Your task to perform on an android device: find photos in the google photos app Image 0: 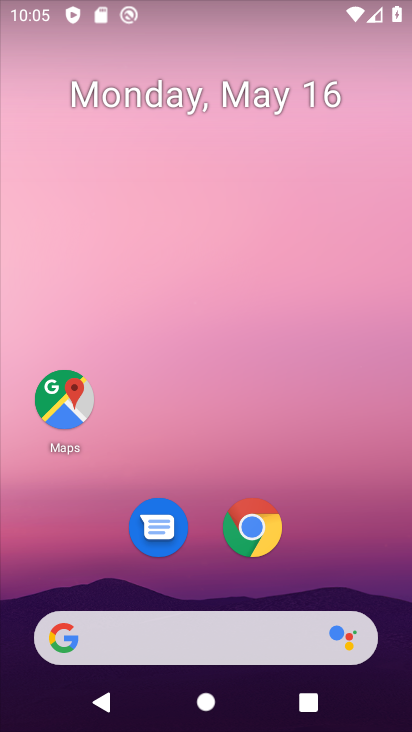
Step 0: press home button
Your task to perform on an android device: find photos in the google photos app Image 1: 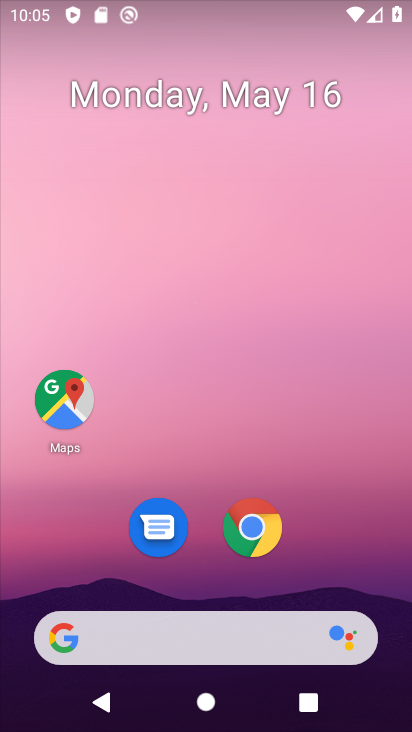
Step 1: drag from (341, 560) to (295, 82)
Your task to perform on an android device: find photos in the google photos app Image 2: 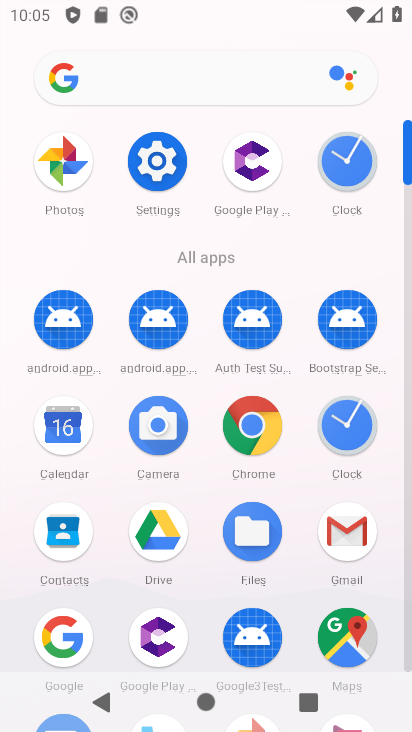
Step 2: click (409, 665)
Your task to perform on an android device: find photos in the google photos app Image 3: 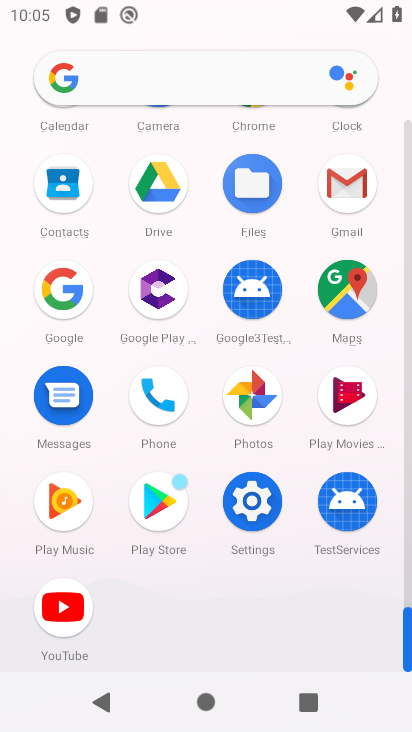
Step 3: click (279, 396)
Your task to perform on an android device: find photos in the google photos app Image 4: 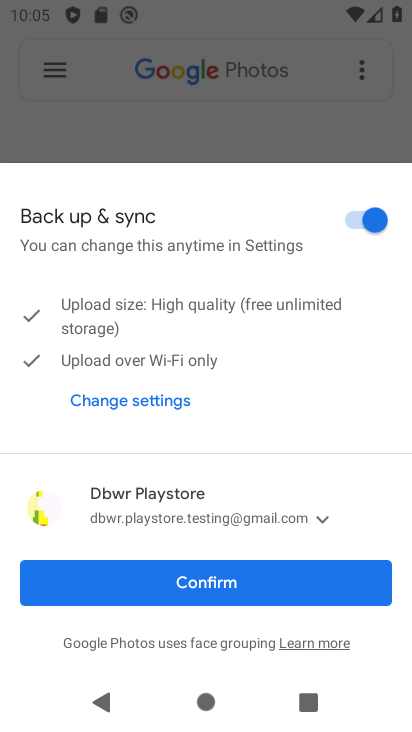
Step 4: click (319, 577)
Your task to perform on an android device: find photos in the google photos app Image 5: 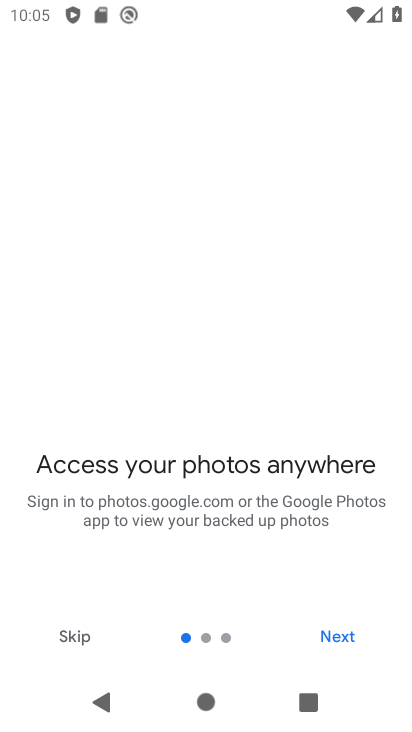
Step 5: click (345, 628)
Your task to perform on an android device: find photos in the google photos app Image 6: 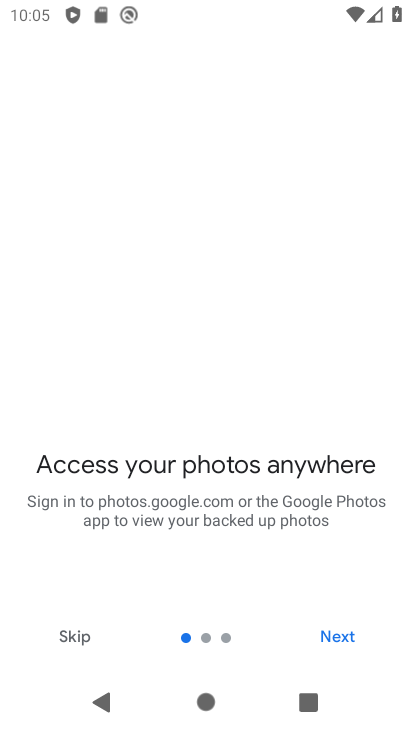
Step 6: click (345, 629)
Your task to perform on an android device: find photos in the google photos app Image 7: 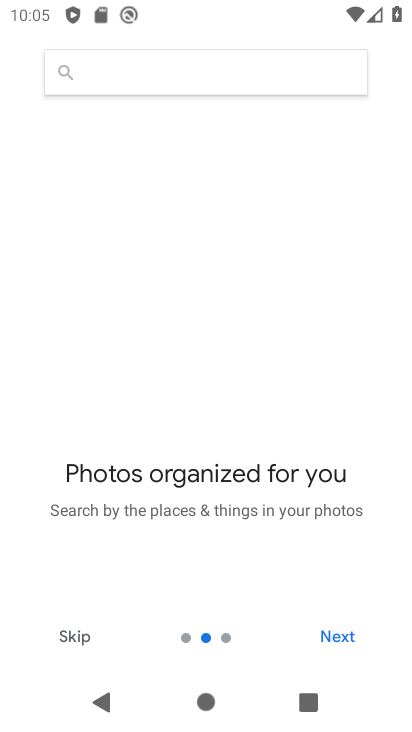
Step 7: click (345, 632)
Your task to perform on an android device: find photos in the google photos app Image 8: 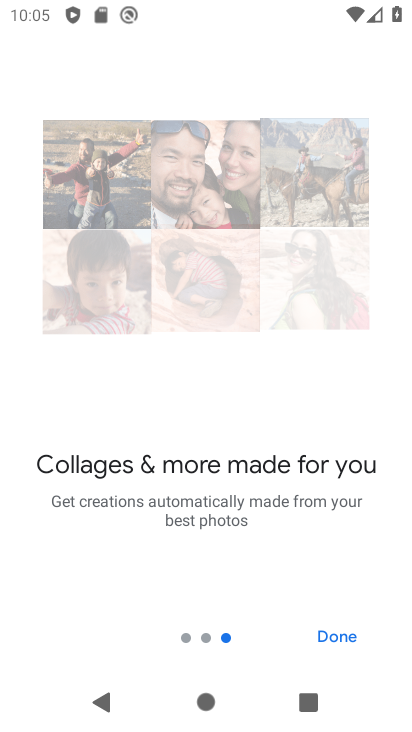
Step 8: click (345, 632)
Your task to perform on an android device: find photos in the google photos app Image 9: 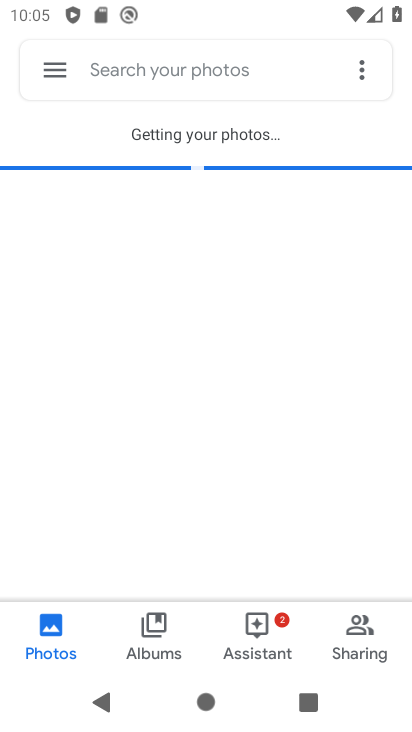
Step 9: click (345, 632)
Your task to perform on an android device: find photos in the google photos app Image 10: 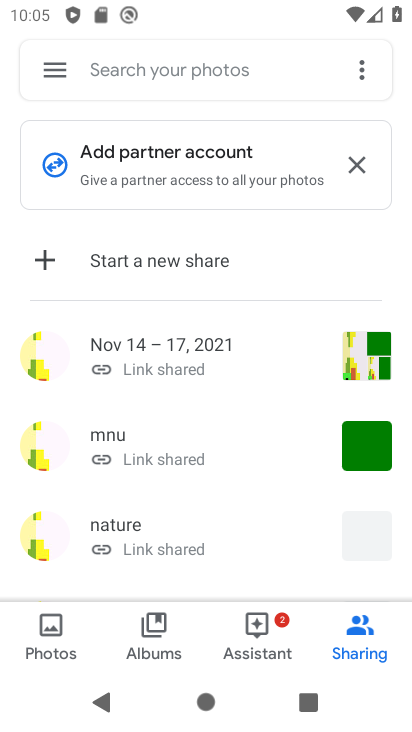
Step 10: click (78, 636)
Your task to perform on an android device: find photos in the google photos app Image 11: 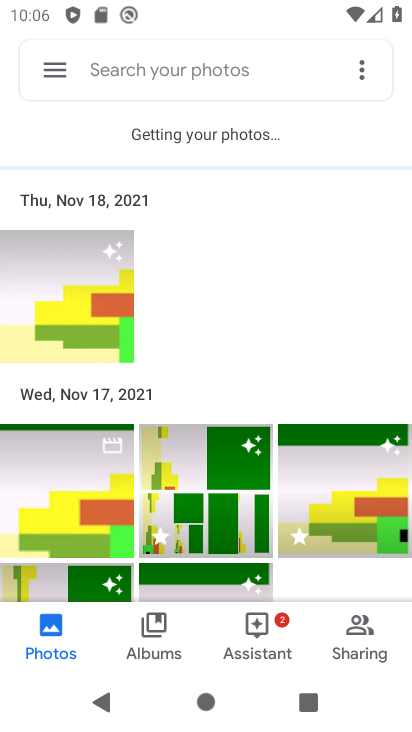
Step 11: task complete